Your task to perform on an android device: Check the news Image 0: 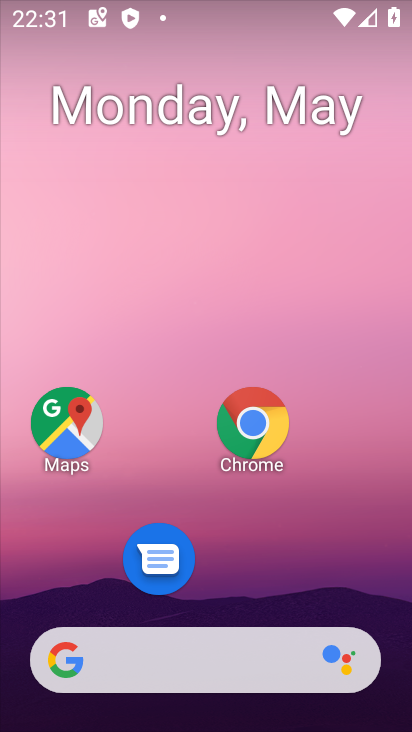
Step 0: click (242, 654)
Your task to perform on an android device: Check the news Image 1: 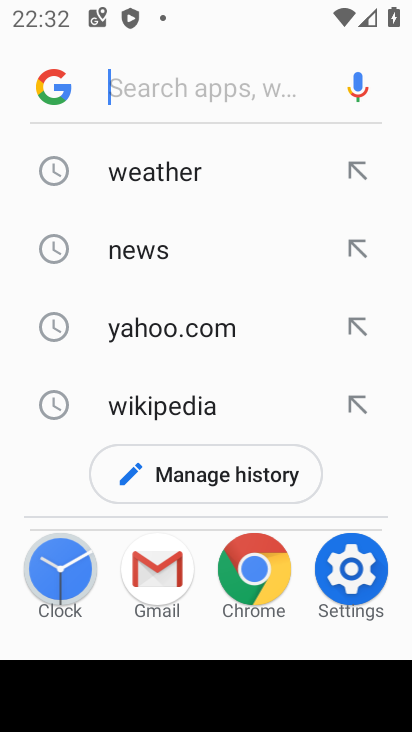
Step 1: click (158, 253)
Your task to perform on an android device: Check the news Image 2: 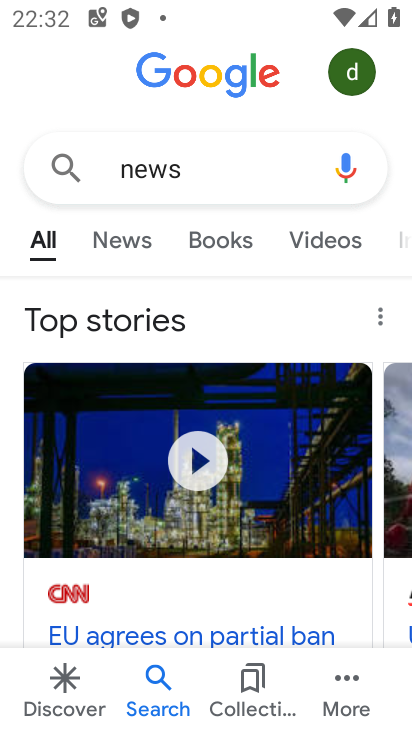
Step 2: task complete